Your task to perform on an android device: Open location settings Image 0: 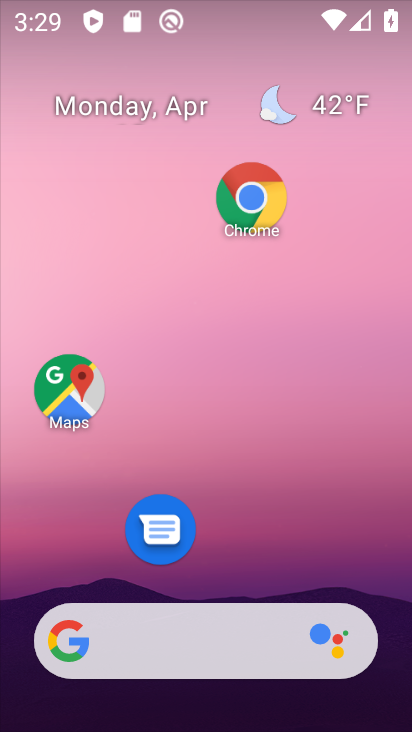
Step 0: drag from (195, 569) to (153, 151)
Your task to perform on an android device: Open location settings Image 1: 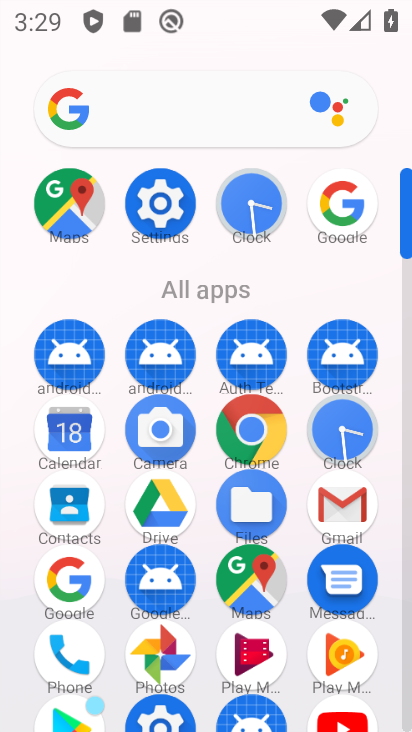
Step 1: click (172, 199)
Your task to perform on an android device: Open location settings Image 2: 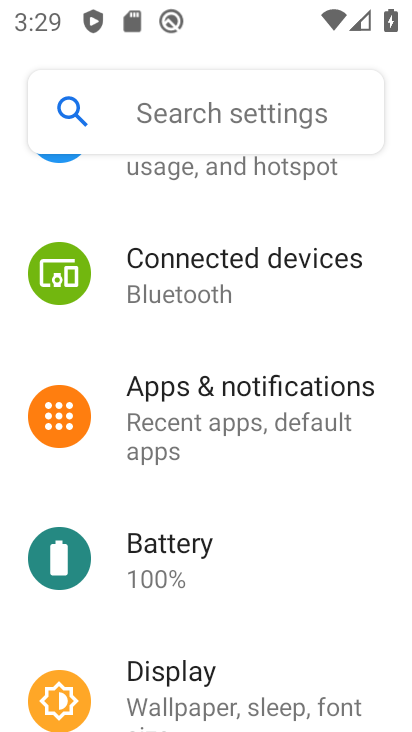
Step 2: drag from (257, 600) to (231, 291)
Your task to perform on an android device: Open location settings Image 3: 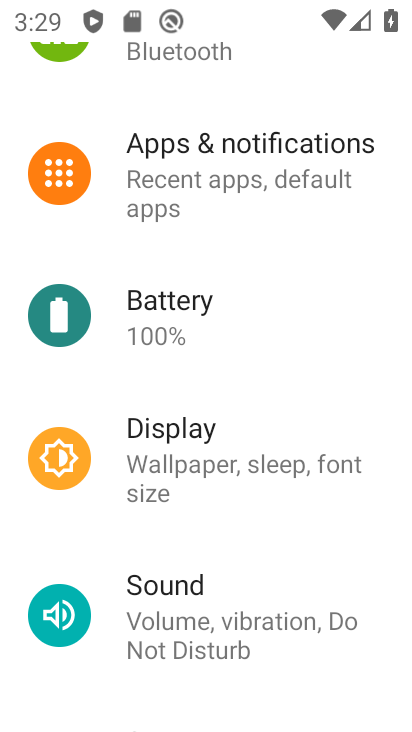
Step 3: drag from (216, 561) to (216, 255)
Your task to perform on an android device: Open location settings Image 4: 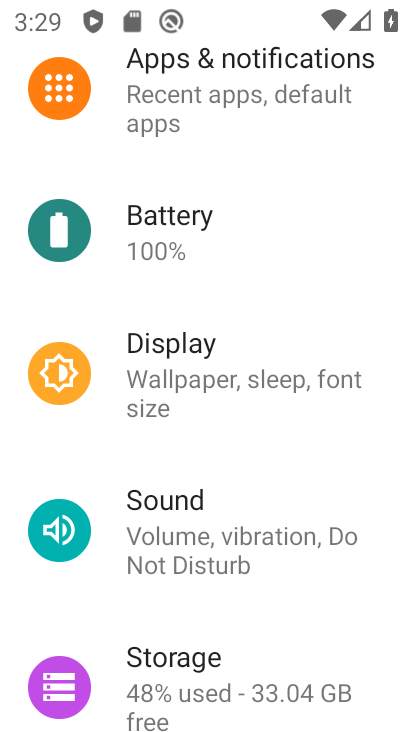
Step 4: drag from (218, 562) to (225, 268)
Your task to perform on an android device: Open location settings Image 5: 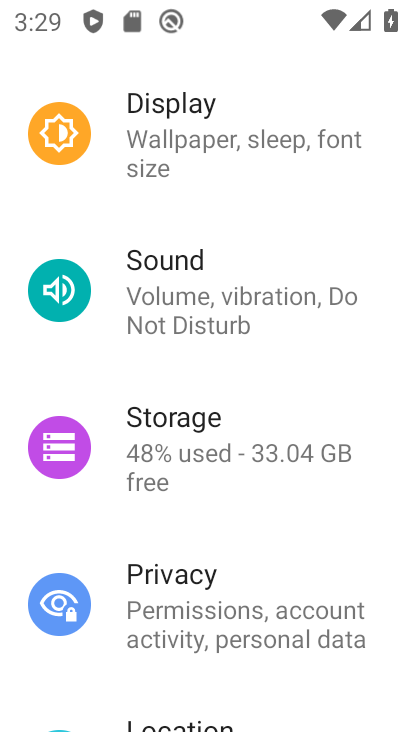
Step 5: drag from (211, 437) to (208, 253)
Your task to perform on an android device: Open location settings Image 6: 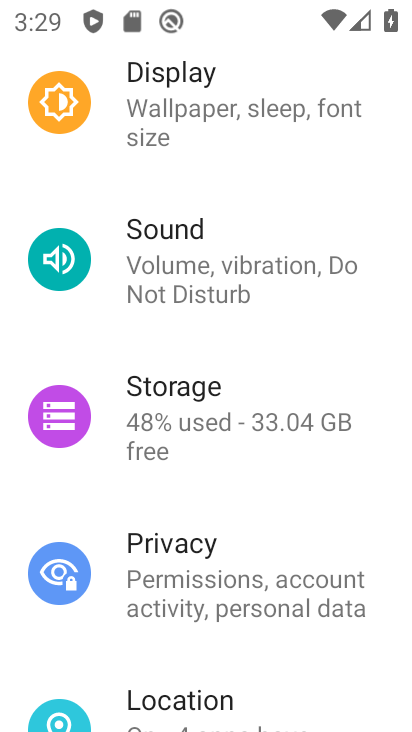
Step 6: click (226, 686)
Your task to perform on an android device: Open location settings Image 7: 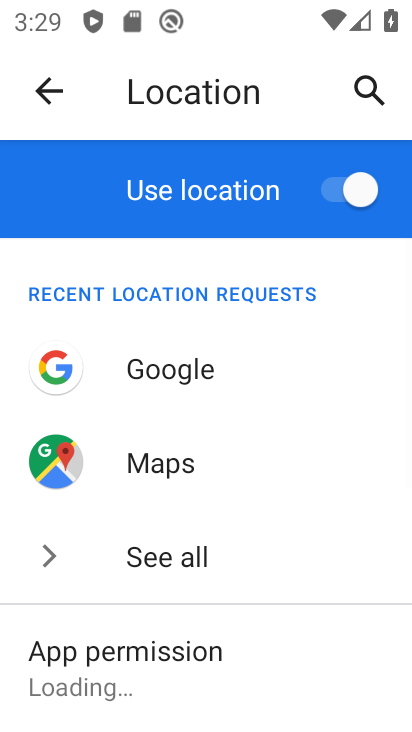
Step 7: task complete